Your task to perform on an android device: Open location settings Image 0: 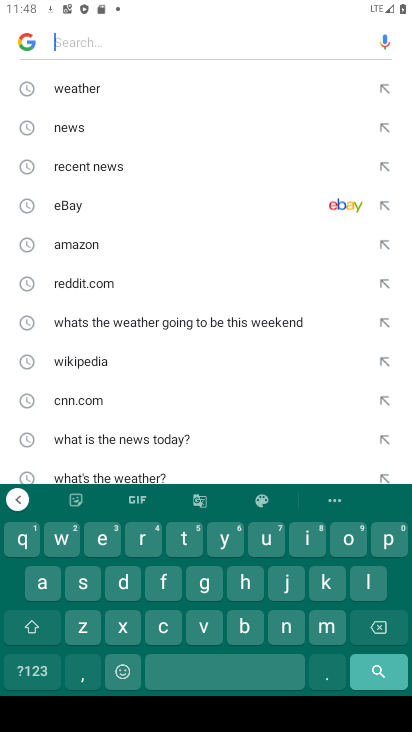
Step 0: press home button
Your task to perform on an android device: Open location settings Image 1: 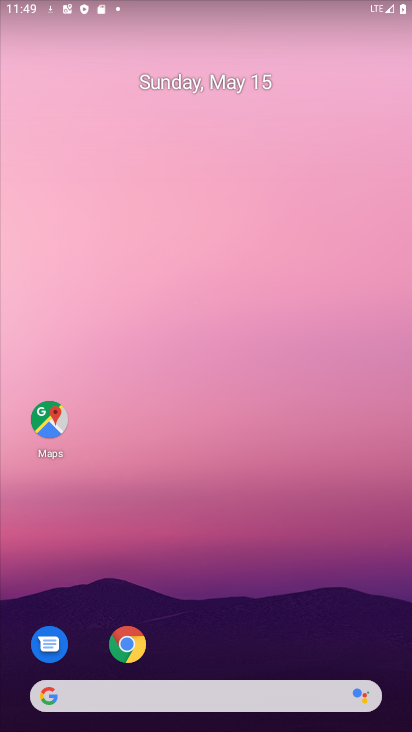
Step 1: drag from (236, 698) to (281, 284)
Your task to perform on an android device: Open location settings Image 2: 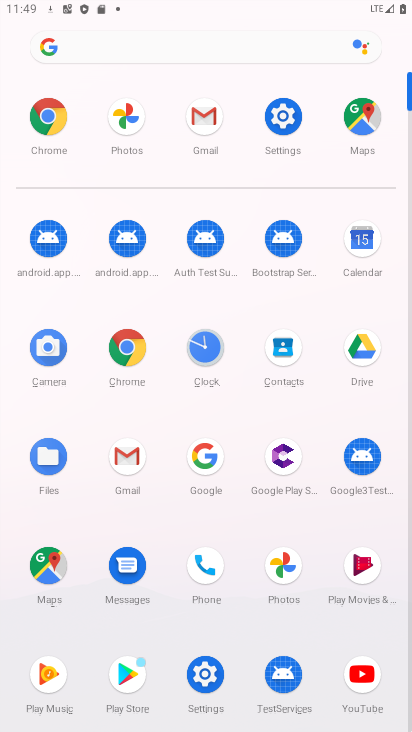
Step 2: click (212, 669)
Your task to perform on an android device: Open location settings Image 3: 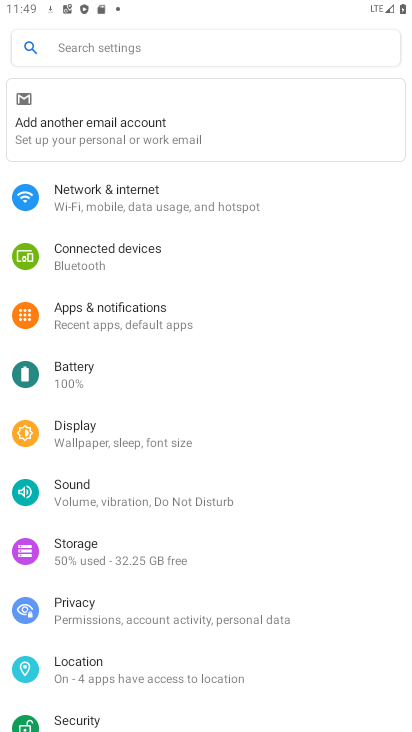
Step 3: click (132, 50)
Your task to perform on an android device: Open location settings Image 4: 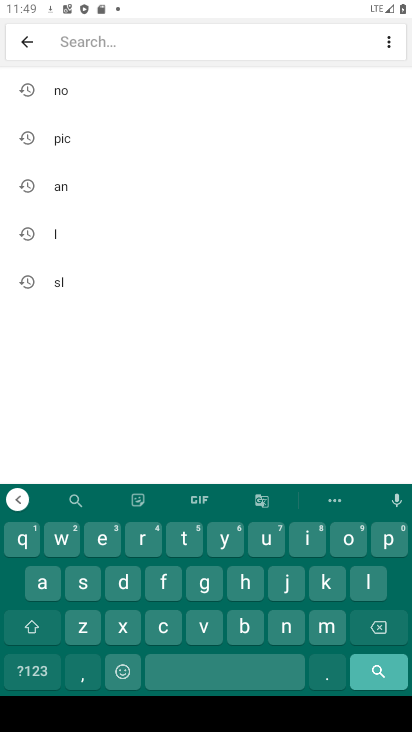
Step 4: click (367, 584)
Your task to perform on an android device: Open location settings Image 5: 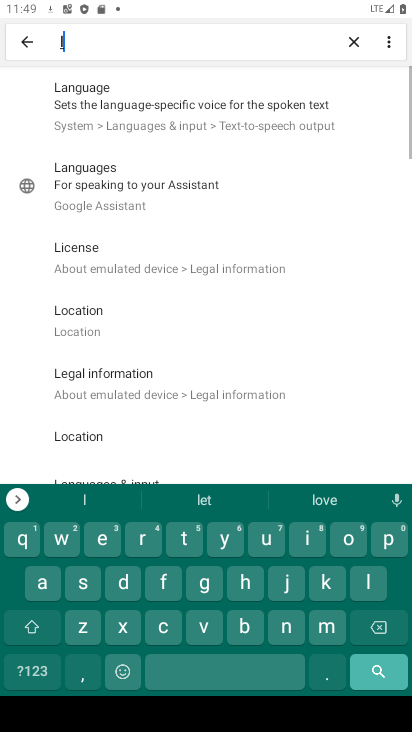
Step 5: click (347, 547)
Your task to perform on an android device: Open location settings Image 6: 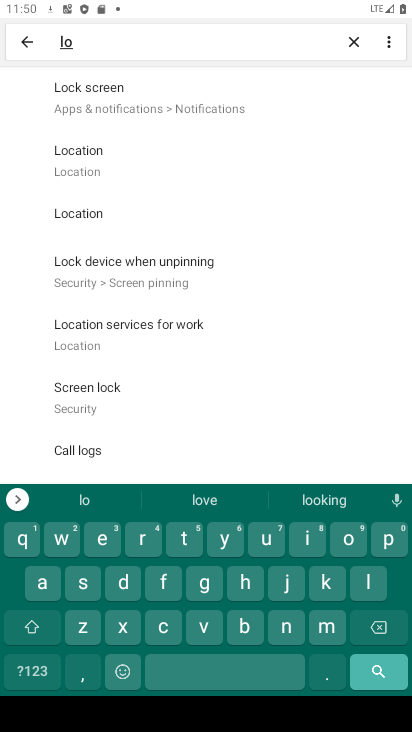
Step 6: click (62, 163)
Your task to perform on an android device: Open location settings Image 7: 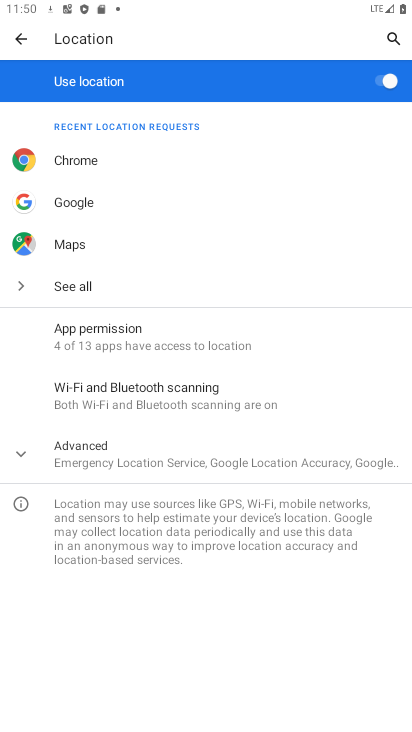
Step 7: click (56, 466)
Your task to perform on an android device: Open location settings Image 8: 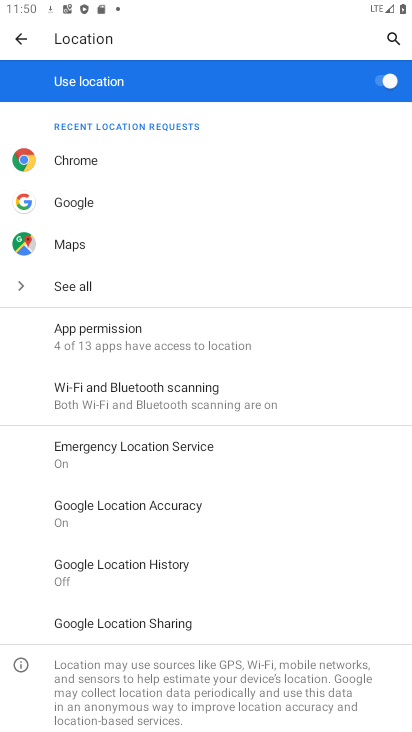
Step 8: task complete